Your task to perform on an android device: choose inbox layout in the gmail app Image 0: 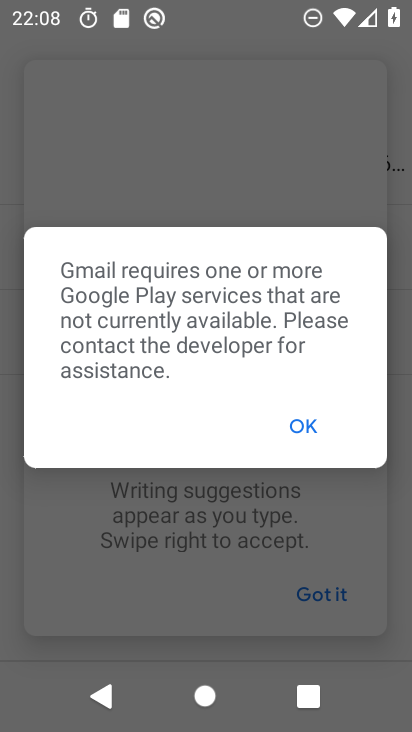
Step 0: press home button
Your task to perform on an android device: choose inbox layout in the gmail app Image 1: 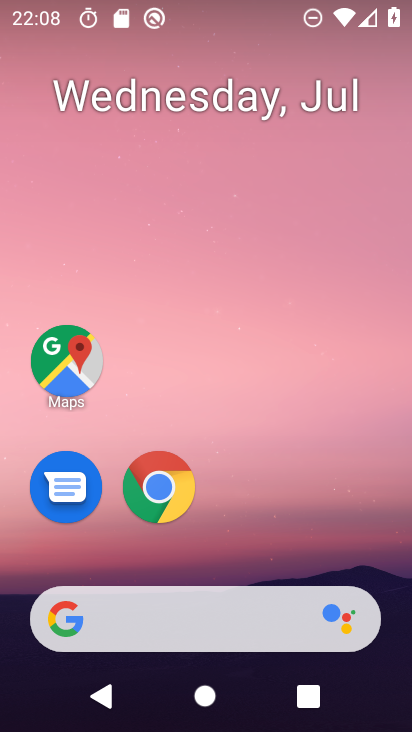
Step 1: drag from (370, 523) to (395, 87)
Your task to perform on an android device: choose inbox layout in the gmail app Image 2: 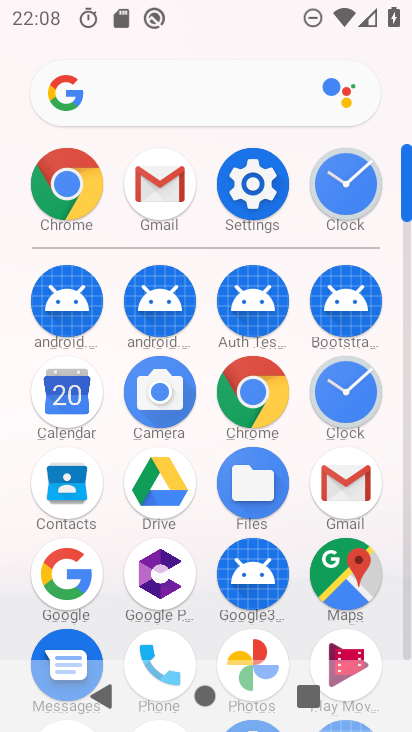
Step 2: click (349, 476)
Your task to perform on an android device: choose inbox layout in the gmail app Image 3: 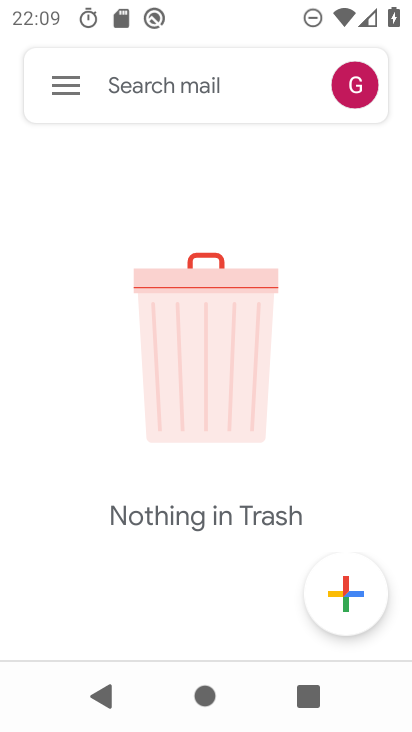
Step 3: click (63, 86)
Your task to perform on an android device: choose inbox layout in the gmail app Image 4: 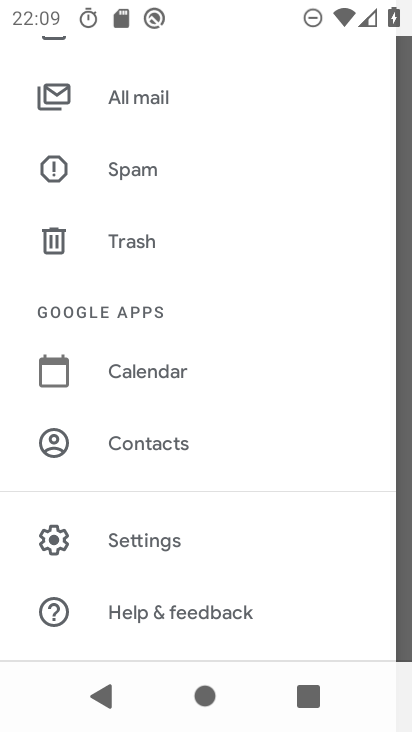
Step 4: click (179, 536)
Your task to perform on an android device: choose inbox layout in the gmail app Image 5: 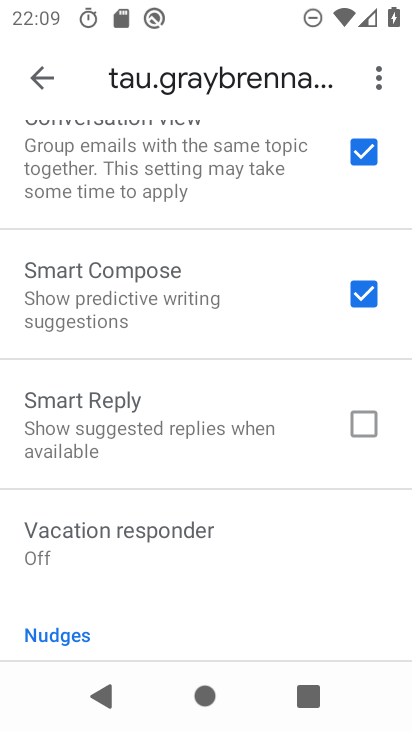
Step 5: drag from (304, 292) to (300, 397)
Your task to perform on an android device: choose inbox layout in the gmail app Image 6: 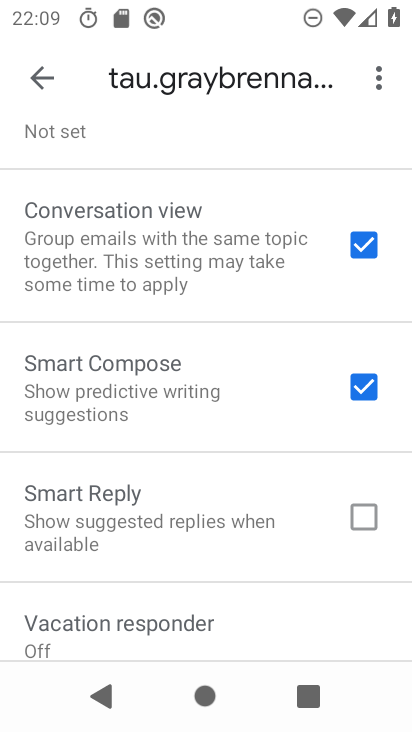
Step 6: drag from (303, 284) to (297, 429)
Your task to perform on an android device: choose inbox layout in the gmail app Image 7: 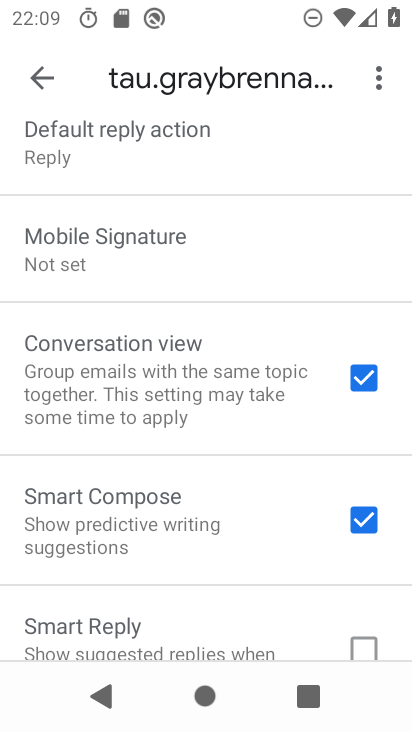
Step 7: drag from (296, 281) to (292, 386)
Your task to perform on an android device: choose inbox layout in the gmail app Image 8: 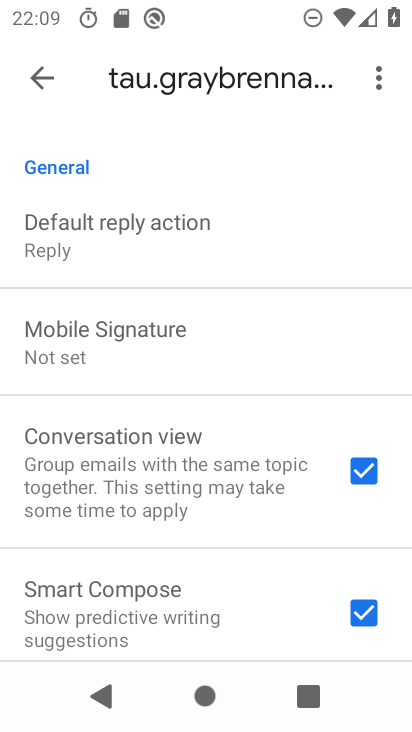
Step 8: drag from (291, 267) to (287, 384)
Your task to perform on an android device: choose inbox layout in the gmail app Image 9: 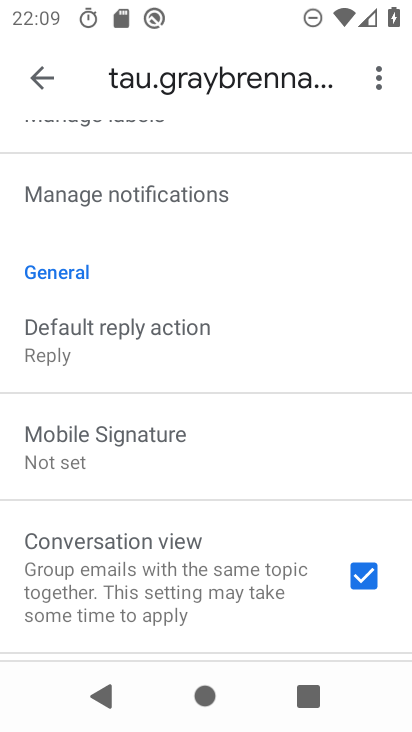
Step 9: drag from (296, 282) to (283, 404)
Your task to perform on an android device: choose inbox layout in the gmail app Image 10: 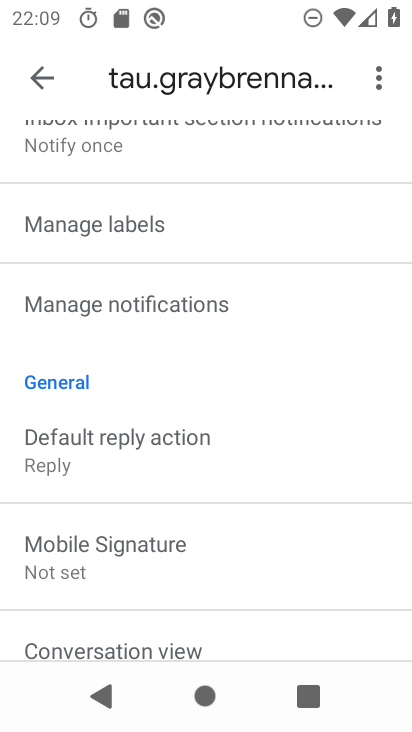
Step 10: drag from (295, 241) to (294, 373)
Your task to perform on an android device: choose inbox layout in the gmail app Image 11: 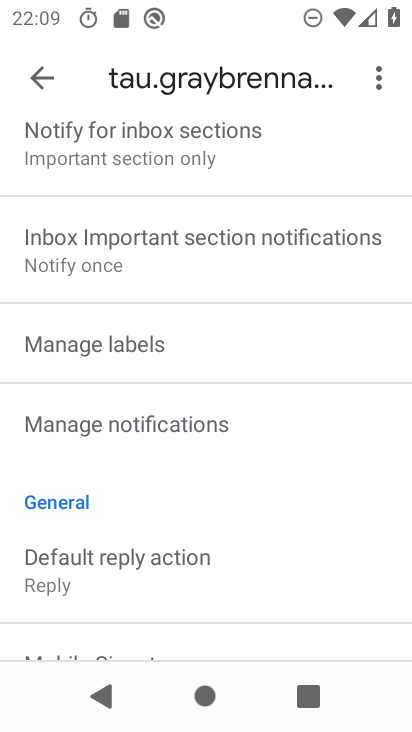
Step 11: drag from (288, 215) to (280, 348)
Your task to perform on an android device: choose inbox layout in the gmail app Image 12: 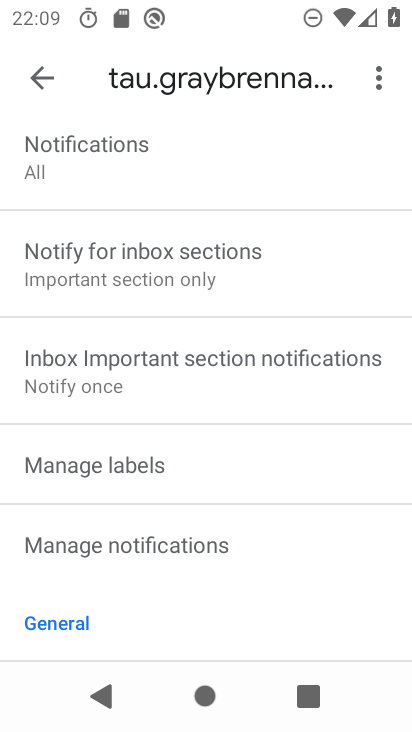
Step 12: drag from (296, 236) to (296, 352)
Your task to perform on an android device: choose inbox layout in the gmail app Image 13: 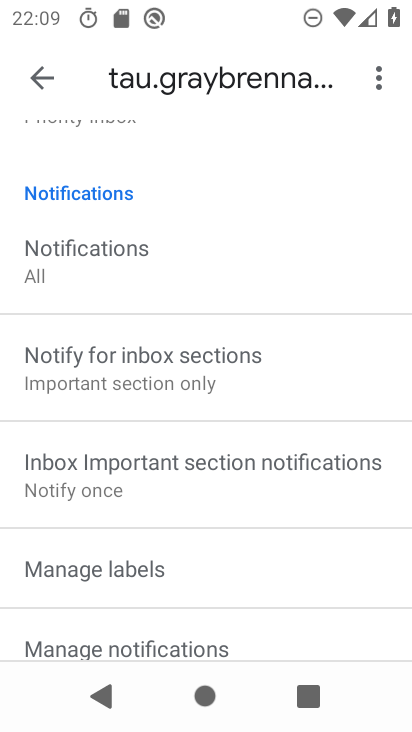
Step 13: drag from (293, 202) to (282, 353)
Your task to perform on an android device: choose inbox layout in the gmail app Image 14: 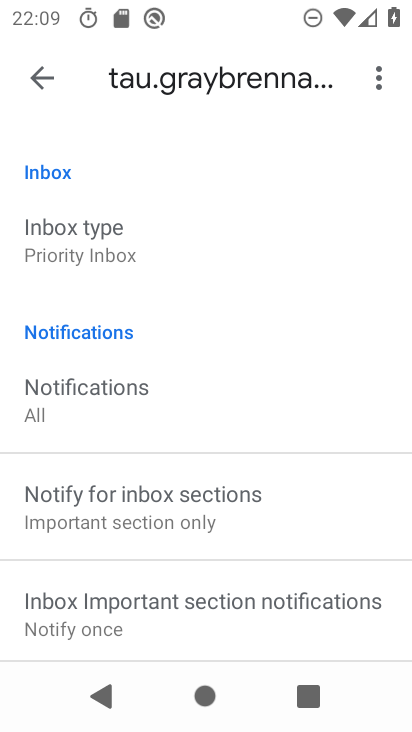
Step 14: drag from (266, 178) to (257, 332)
Your task to perform on an android device: choose inbox layout in the gmail app Image 15: 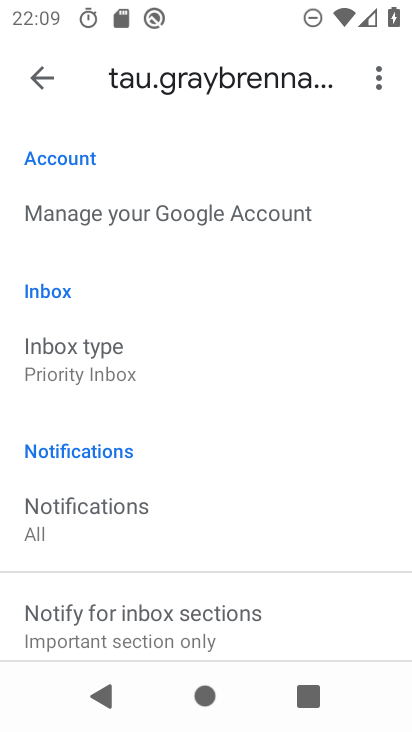
Step 15: click (147, 346)
Your task to perform on an android device: choose inbox layout in the gmail app Image 16: 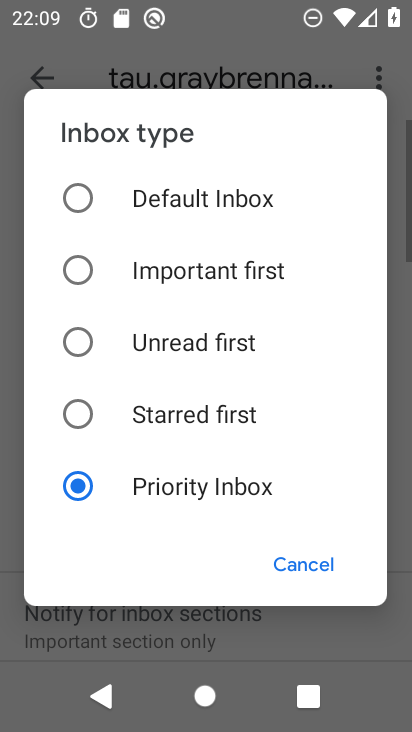
Step 16: click (150, 345)
Your task to perform on an android device: choose inbox layout in the gmail app Image 17: 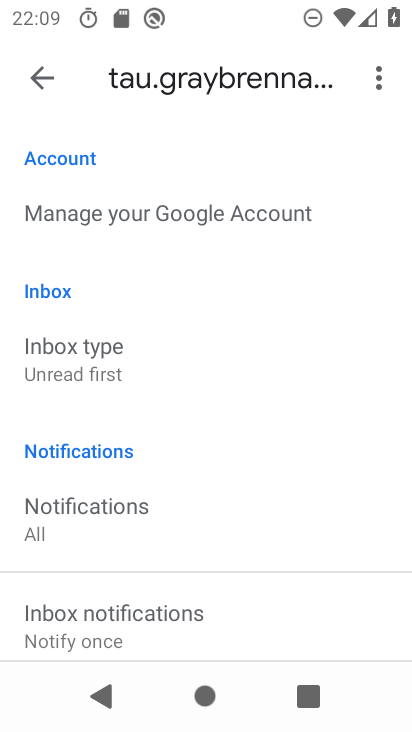
Step 17: task complete